Your task to perform on an android device: toggle improve location accuracy Image 0: 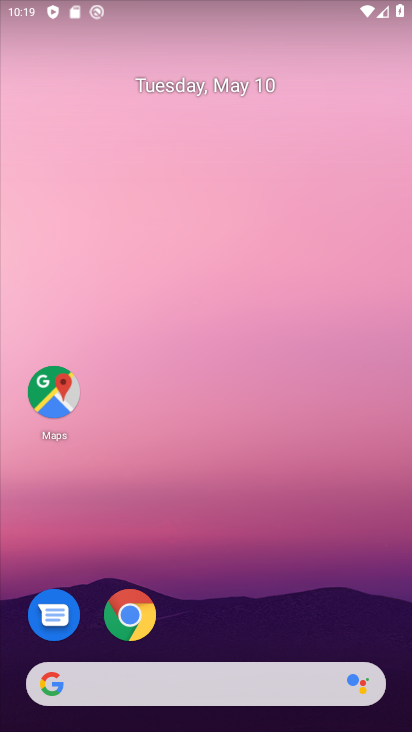
Step 0: drag from (247, 604) to (173, 98)
Your task to perform on an android device: toggle improve location accuracy Image 1: 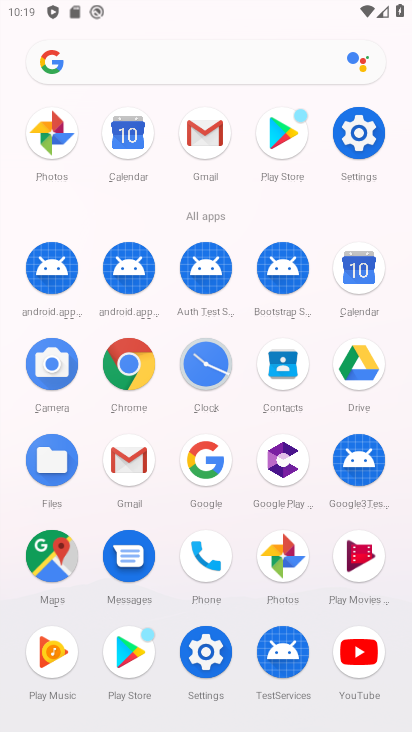
Step 1: click (360, 133)
Your task to perform on an android device: toggle improve location accuracy Image 2: 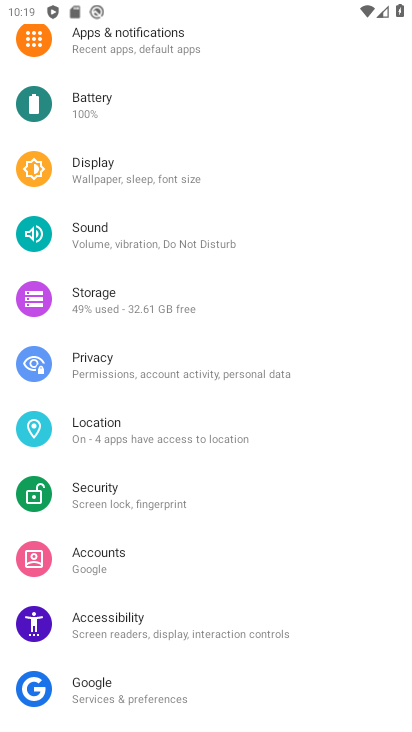
Step 2: drag from (212, 282) to (240, 441)
Your task to perform on an android device: toggle improve location accuracy Image 3: 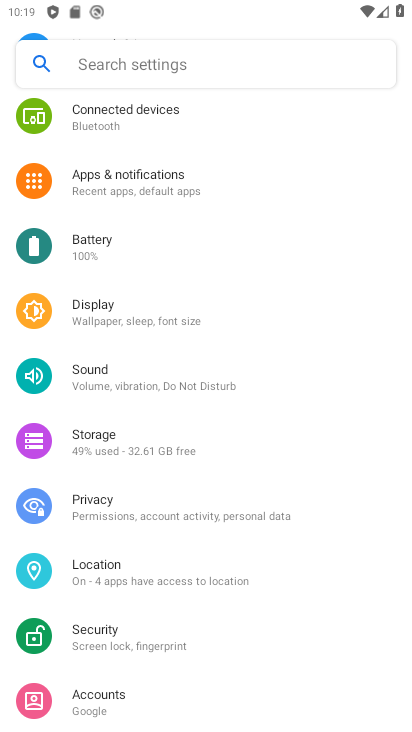
Step 3: drag from (188, 158) to (210, 330)
Your task to perform on an android device: toggle improve location accuracy Image 4: 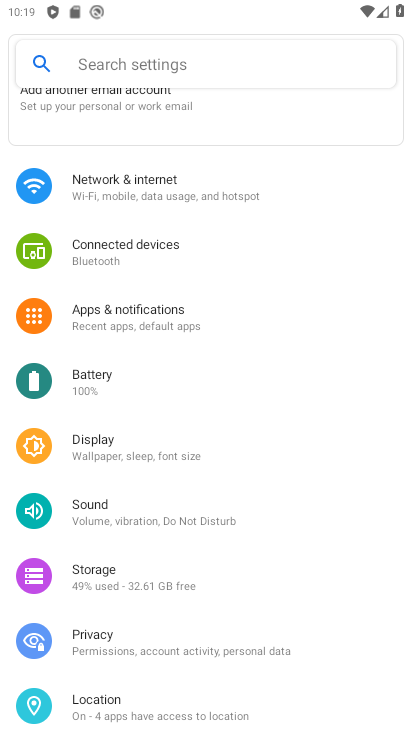
Step 4: click (96, 706)
Your task to perform on an android device: toggle improve location accuracy Image 5: 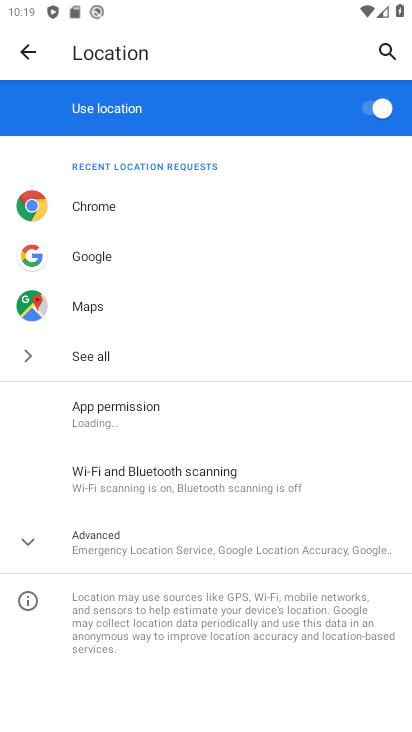
Step 5: click (131, 551)
Your task to perform on an android device: toggle improve location accuracy Image 6: 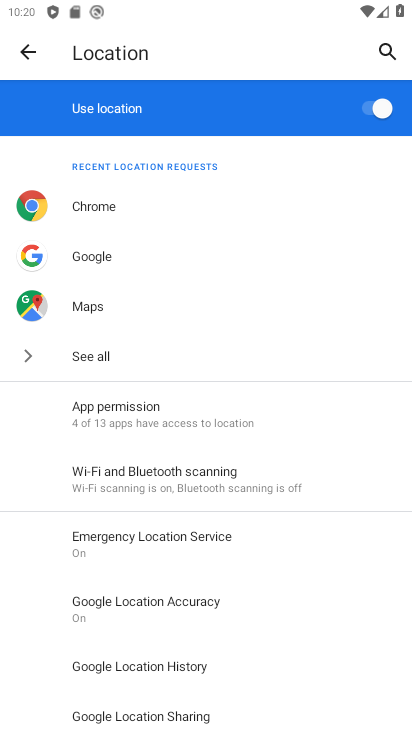
Step 6: click (143, 597)
Your task to perform on an android device: toggle improve location accuracy Image 7: 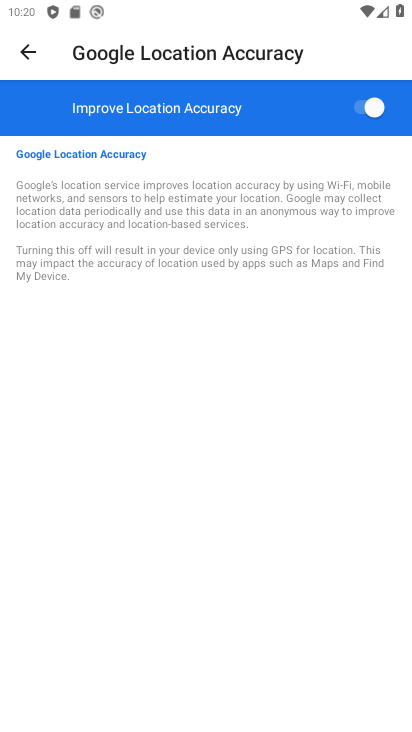
Step 7: click (368, 107)
Your task to perform on an android device: toggle improve location accuracy Image 8: 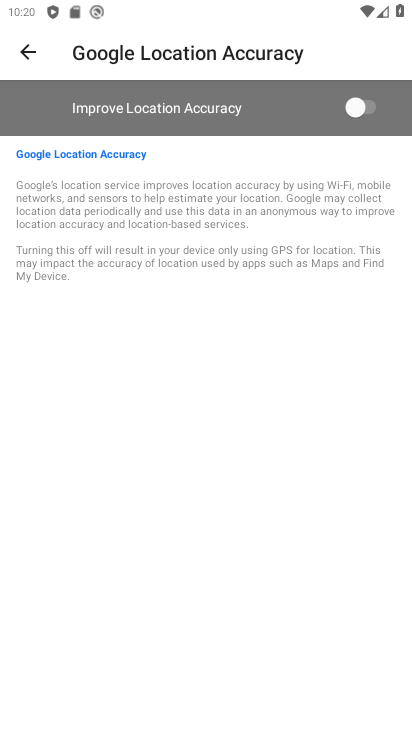
Step 8: task complete